Your task to perform on an android device: Open calendar and show me the first week of next month Image 0: 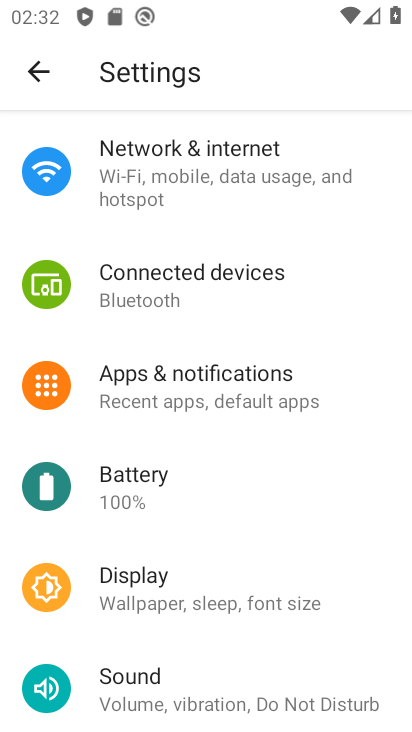
Step 0: press home button
Your task to perform on an android device: Open calendar and show me the first week of next month Image 1: 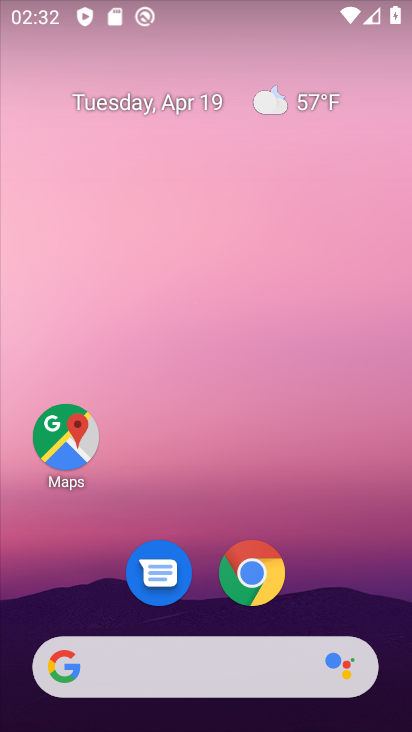
Step 1: drag from (376, 608) to (384, 50)
Your task to perform on an android device: Open calendar and show me the first week of next month Image 2: 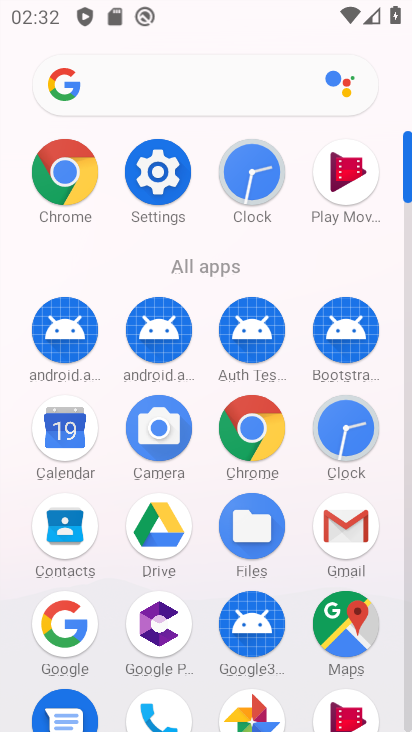
Step 2: click (64, 454)
Your task to perform on an android device: Open calendar and show me the first week of next month Image 3: 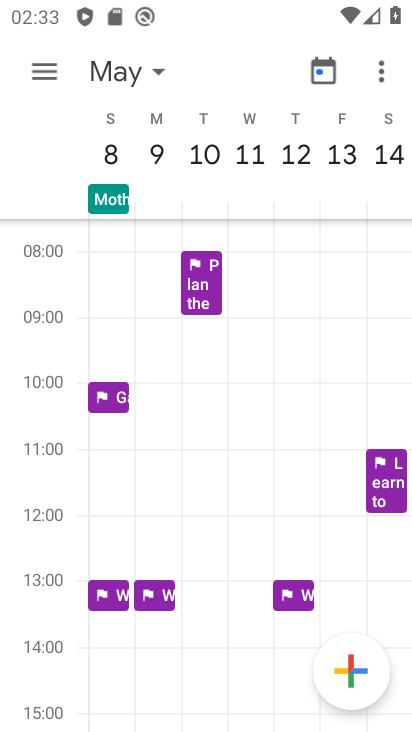
Step 3: task complete